Your task to perform on an android device: View the shopping cart on newegg.com. Add "beats solo 3" to the cart on newegg.com, then select checkout. Image 0: 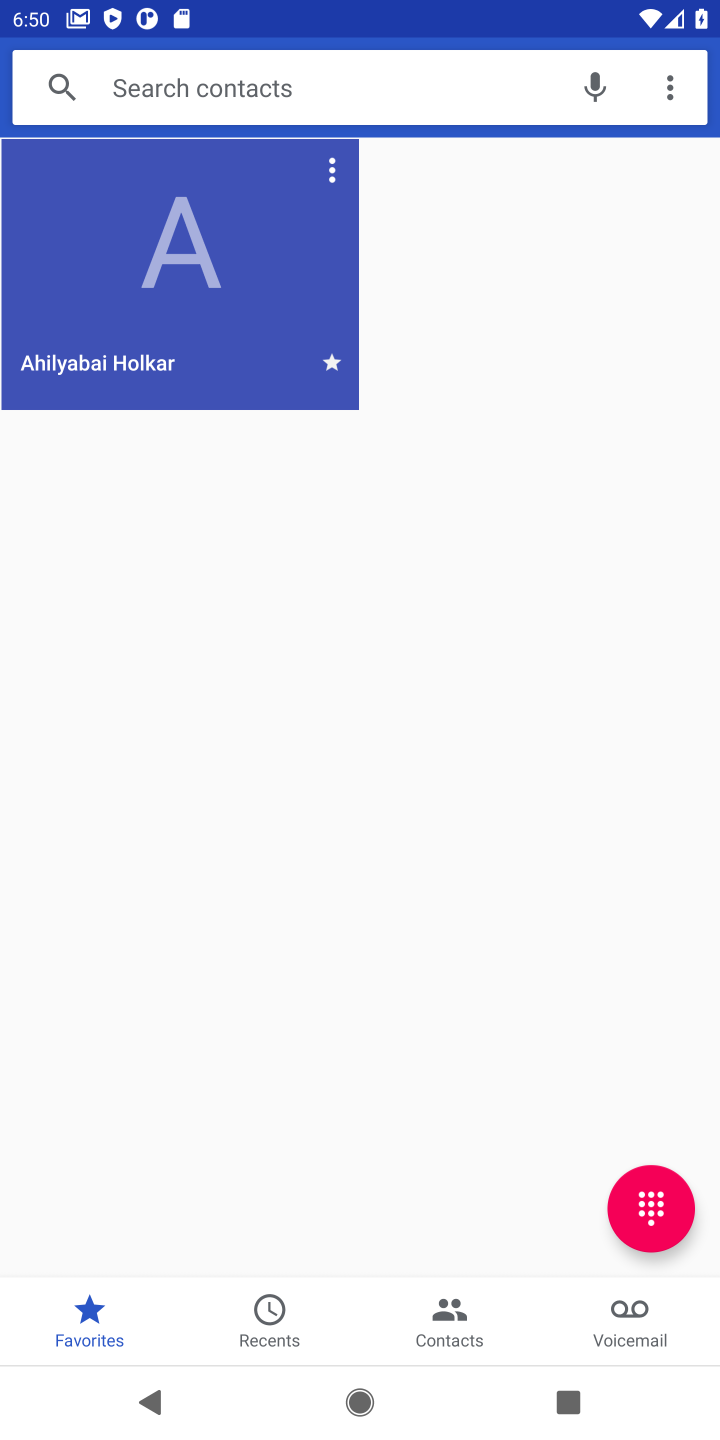
Step 0: press home button
Your task to perform on an android device: View the shopping cart on newegg.com. Add "beats solo 3" to the cart on newegg.com, then select checkout. Image 1: 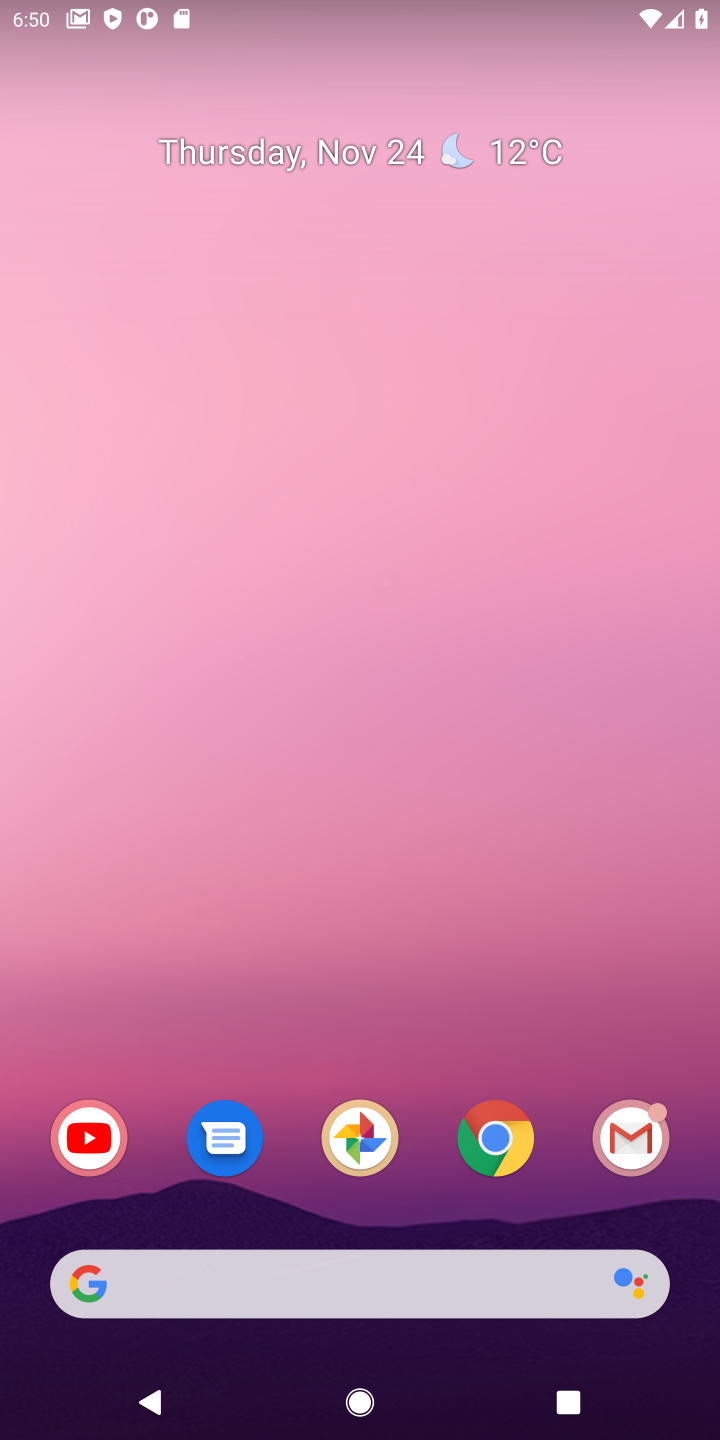
Step 1: click (499, 1121)
Your task to perform on an android device: View the shopping cart on newegg.com. Add "beats solo 3" to the cart on newegg.com, then select checkout. Image 2: 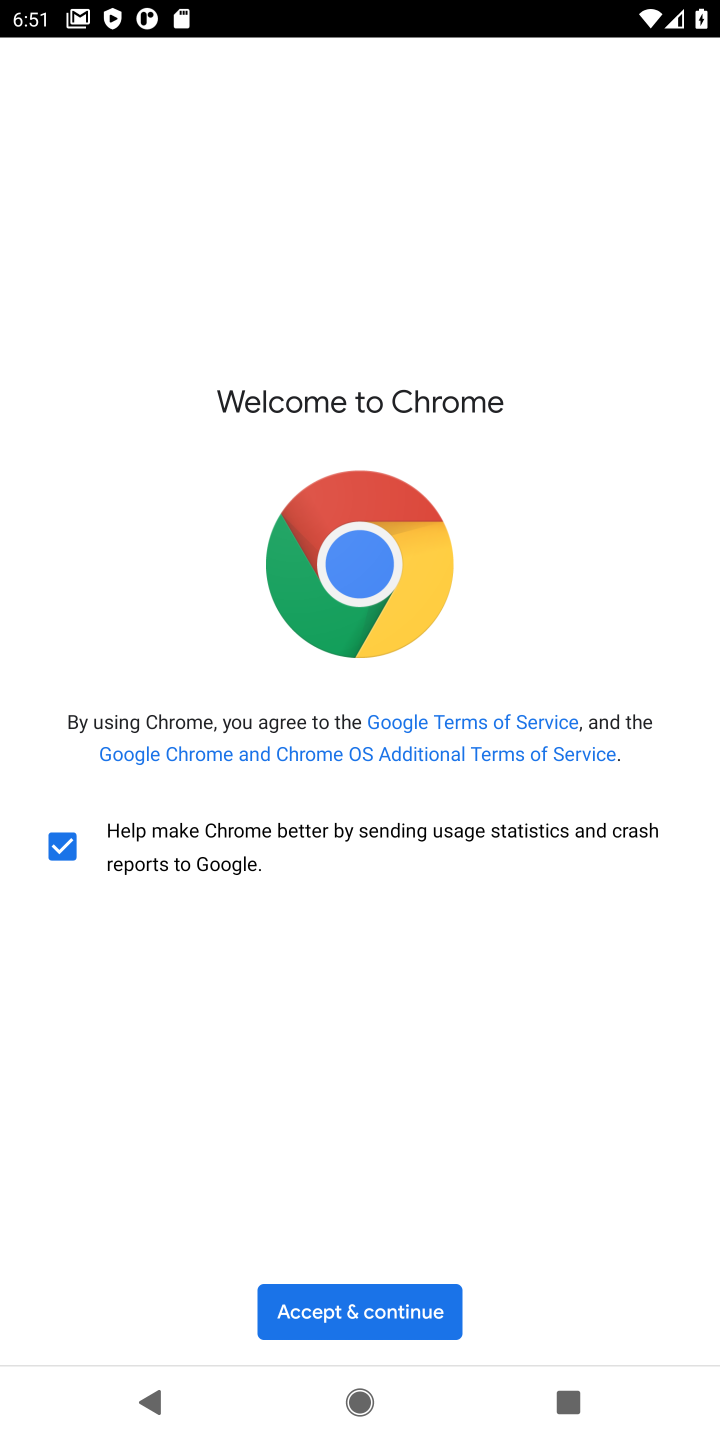
Step 2: click (355, 1309)
Your task to perform on an android device: View the shopping cart on newegg.com. Add "beats solo 3" to the cart on newegg.com, then select checkout. Image 3: 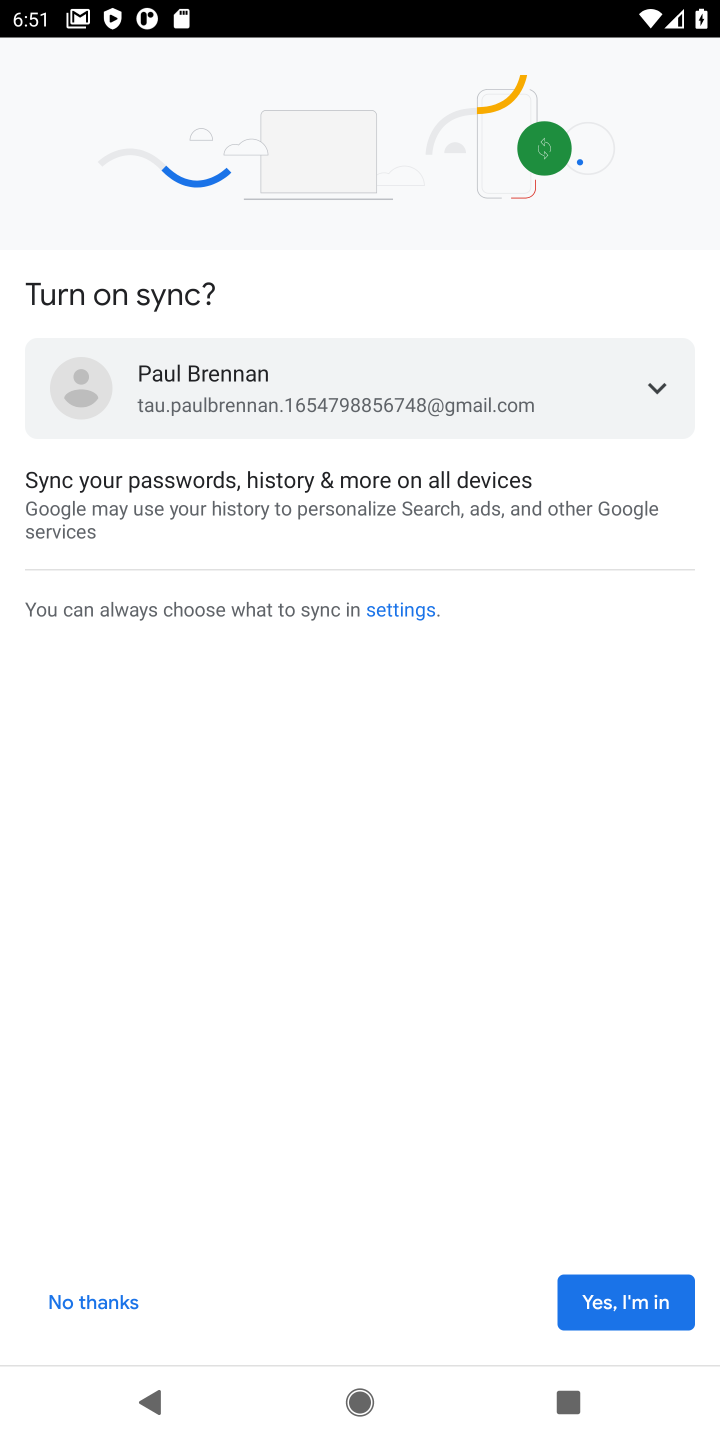
Step 3: click (619, 1311)
Your task to perform on an android device: View the shopping cart on newegg.com. Add "beats solo 3" to the cart on newegg.com, then select checkout. Image 4: 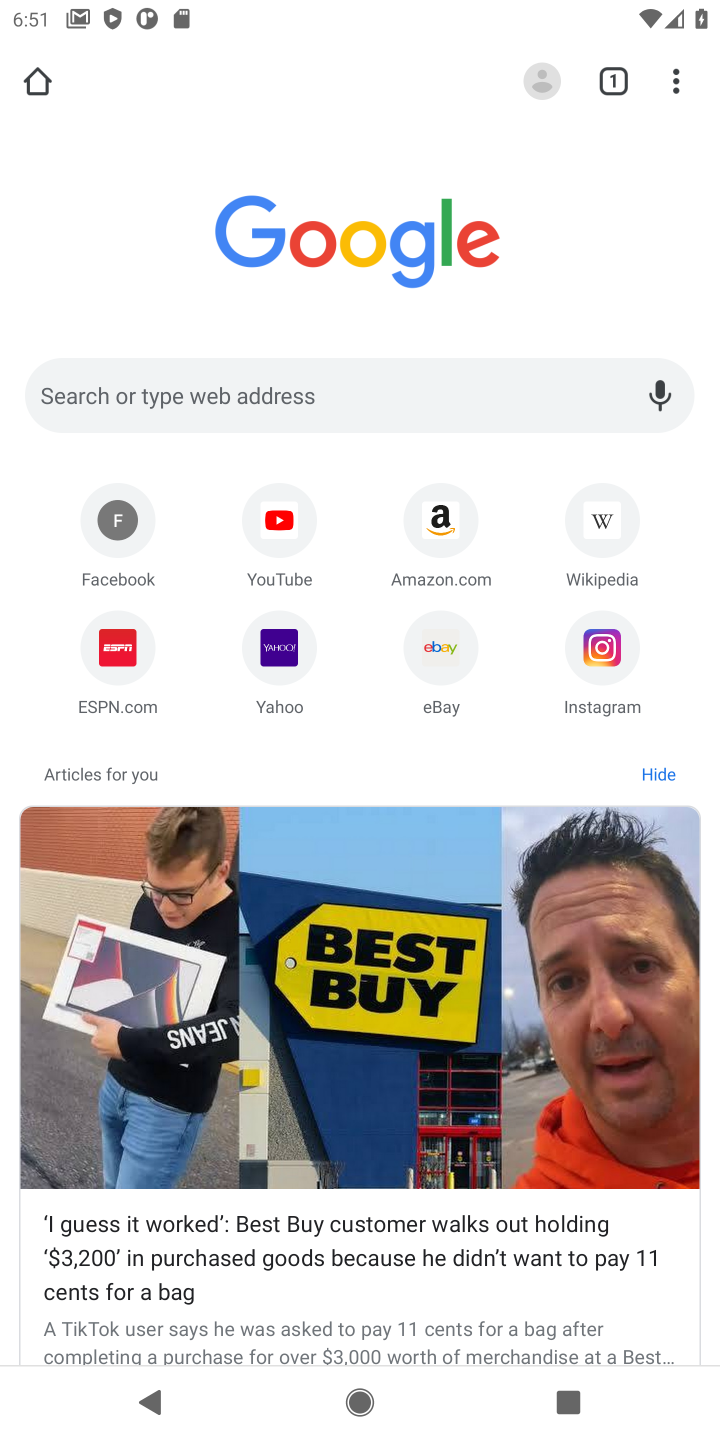
Step 4: click (321, 377)
Your task to perform on an android device: View the shopping cart on newegg.com. Add "beats solo 3" to the cart on newegg.com, then select checkout. Image 5: 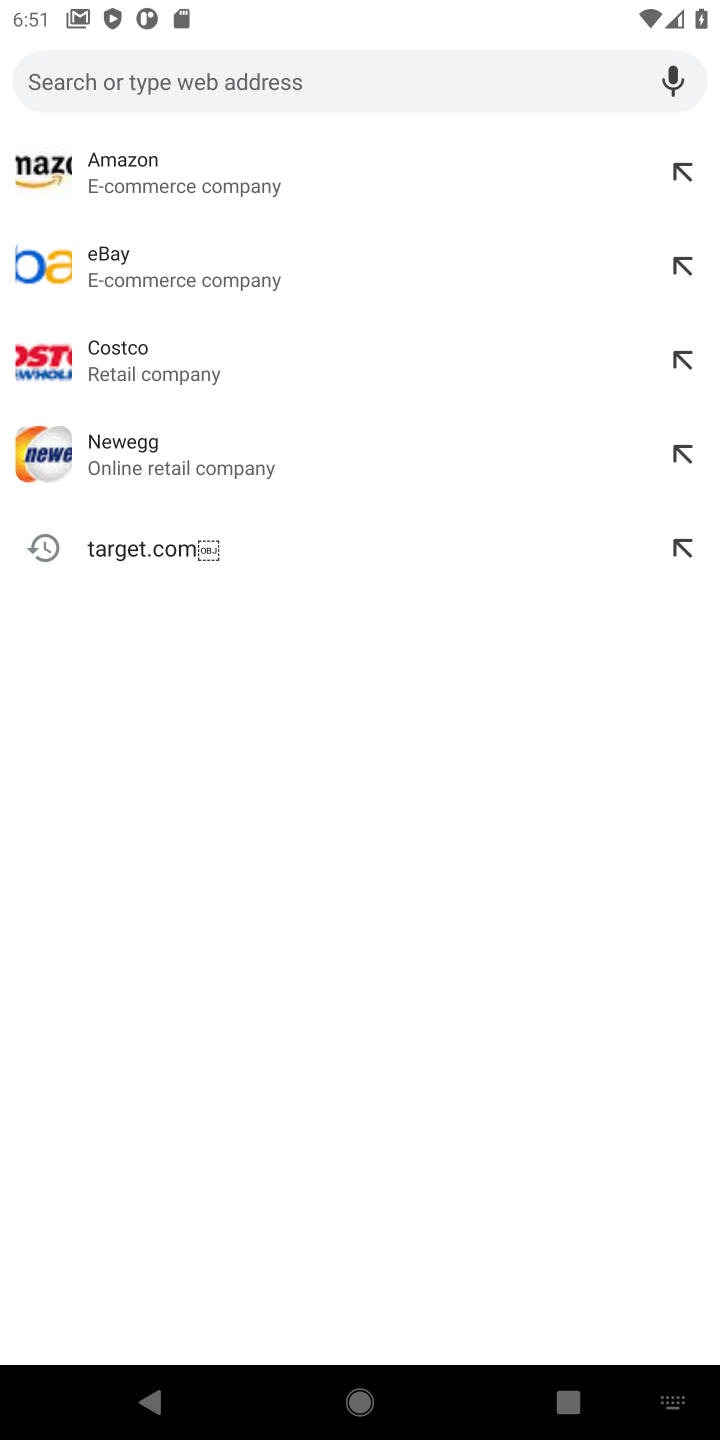
Step 5: click (210, 444)
Your task to perform on an android device: View the shopping cart on newegg.com. Add "beats solo 3" to the cart on newegg.com, then select checkout. Image 6: 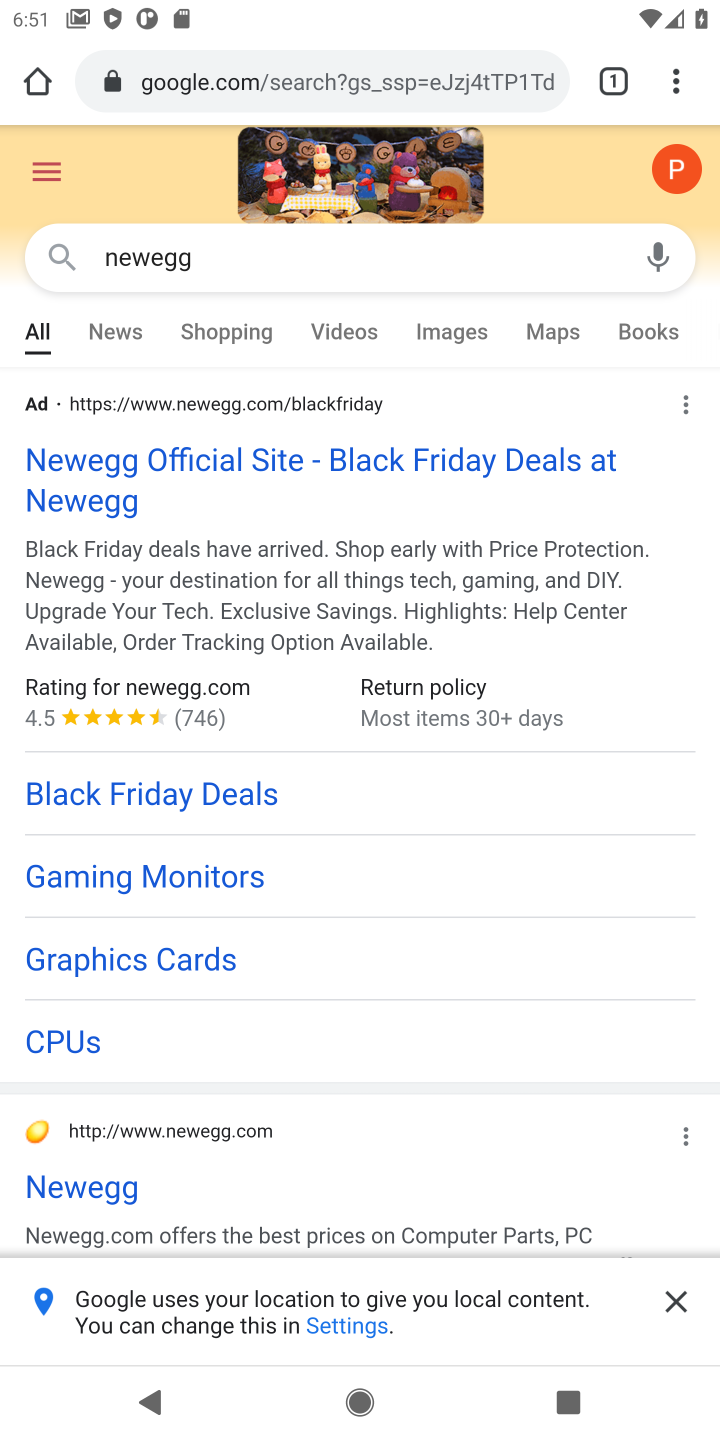
Step 6: click (197, 454)
Your task to perform on an android device: View the shopping cart on newegg.com. Add "beats solo 3" to the cart on newegg.com, then select checkout. Image 7: 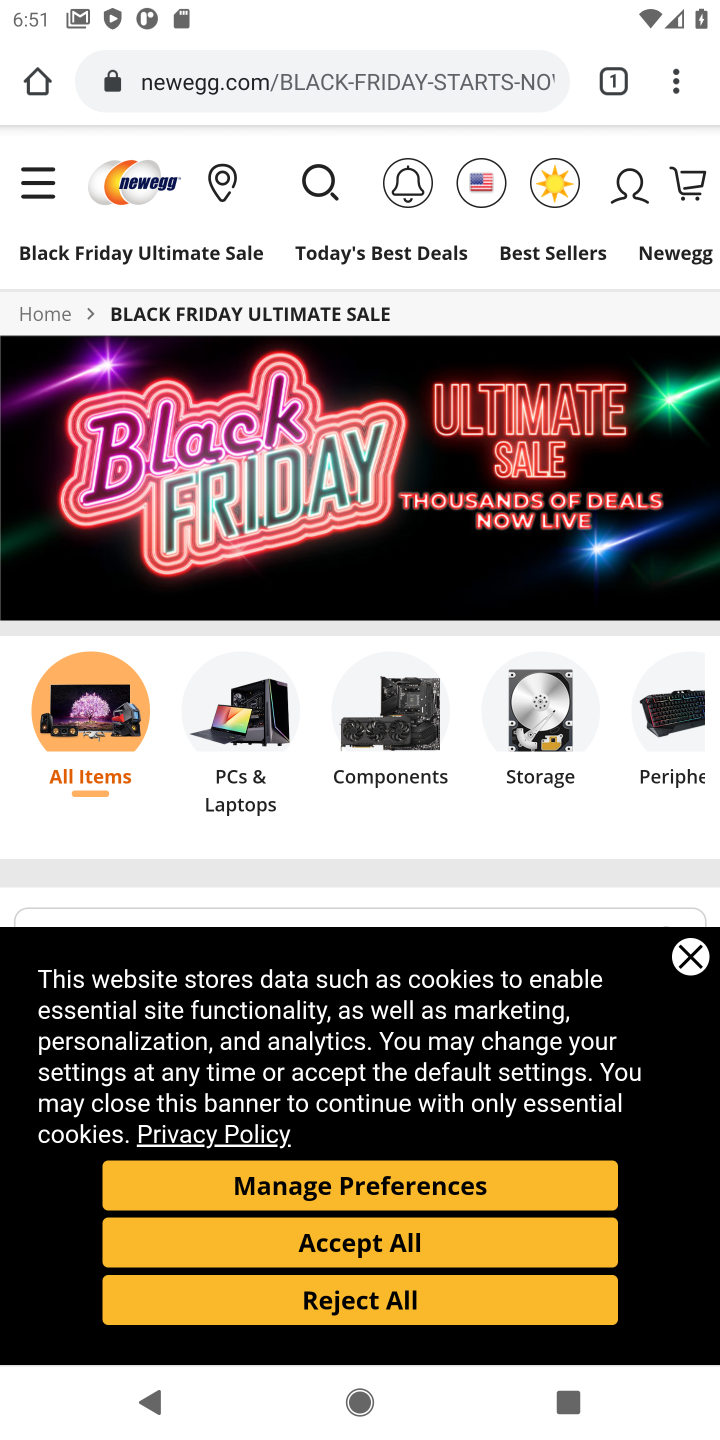
Step 7: click (702, 947)
Your task to perform on an android device: View the shopping cart on newegg.com. Add "beats solo 3" to the cart on newegg.com, then select checkout. Image 8: 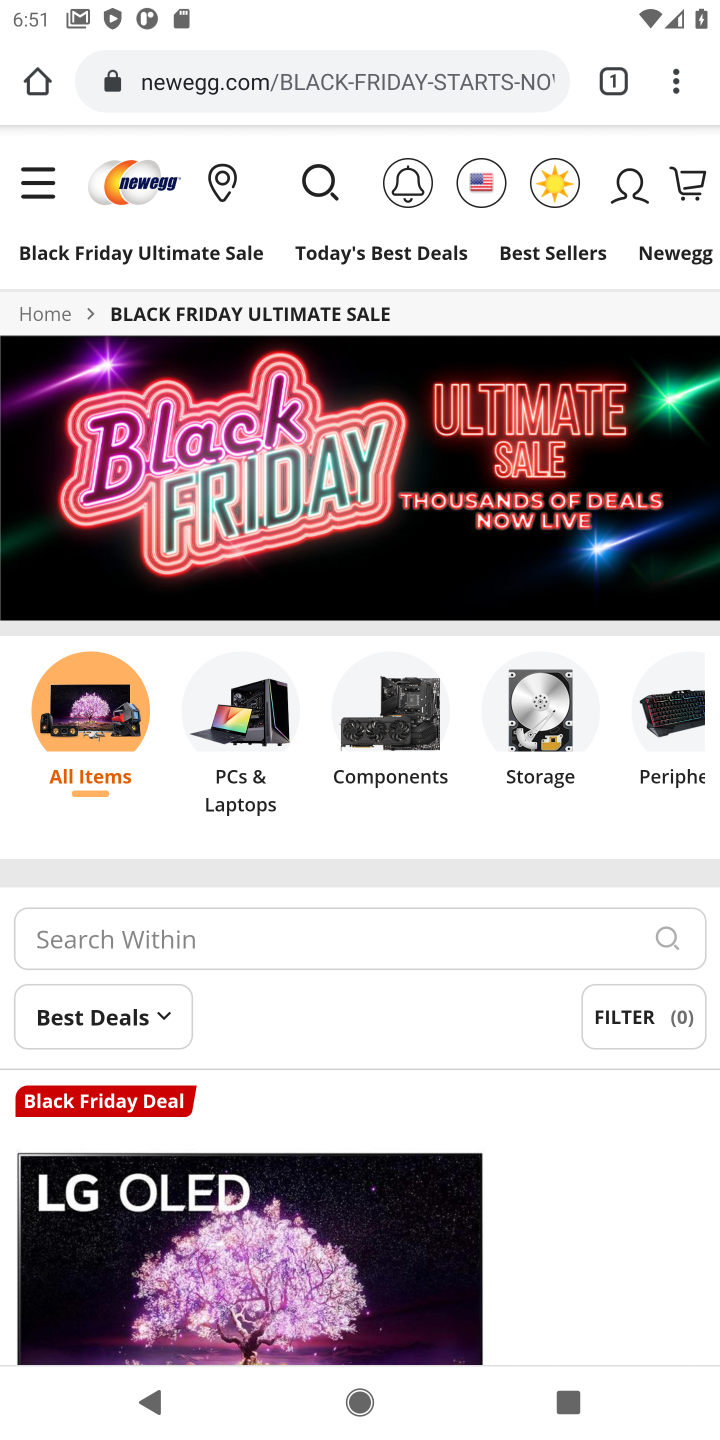
Step 8: click (338, 936)
Your task to perform on an android device: View the shopping cart on newegg.com. Add "beats solo 3" to the cart on newegg.com, then select checkout. Image 9: 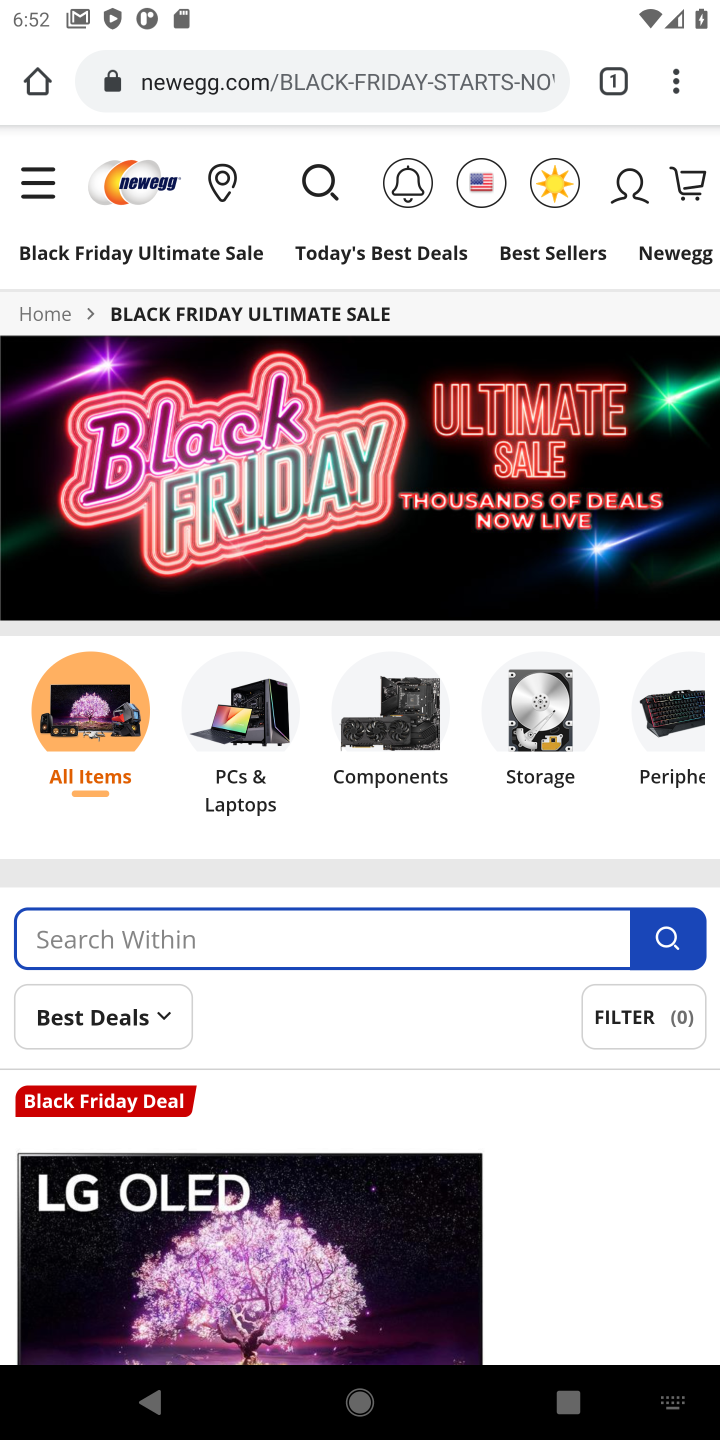
Step 9: type "beats solo 3"
Your task to perform on an android device: View the shopping cart on newegg.com. Add "beats solo 3" to the cart on newegg.com, then select checkout. Image 10: 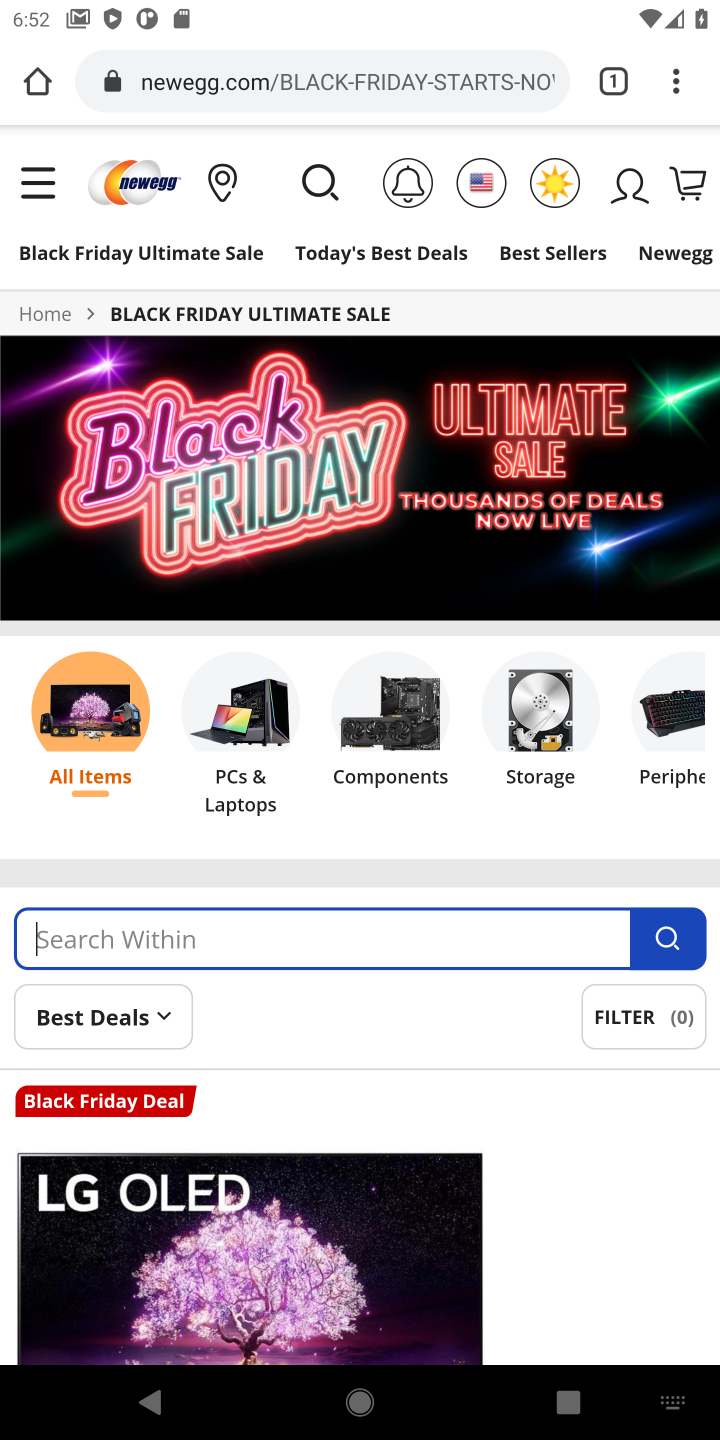
Step 10: click (242, 938)
Your task to perform on an android device: View the shopping cart on newegg.com. Add "beats solo 3" to the cart on newegg.com, then select checkout. Image 11: 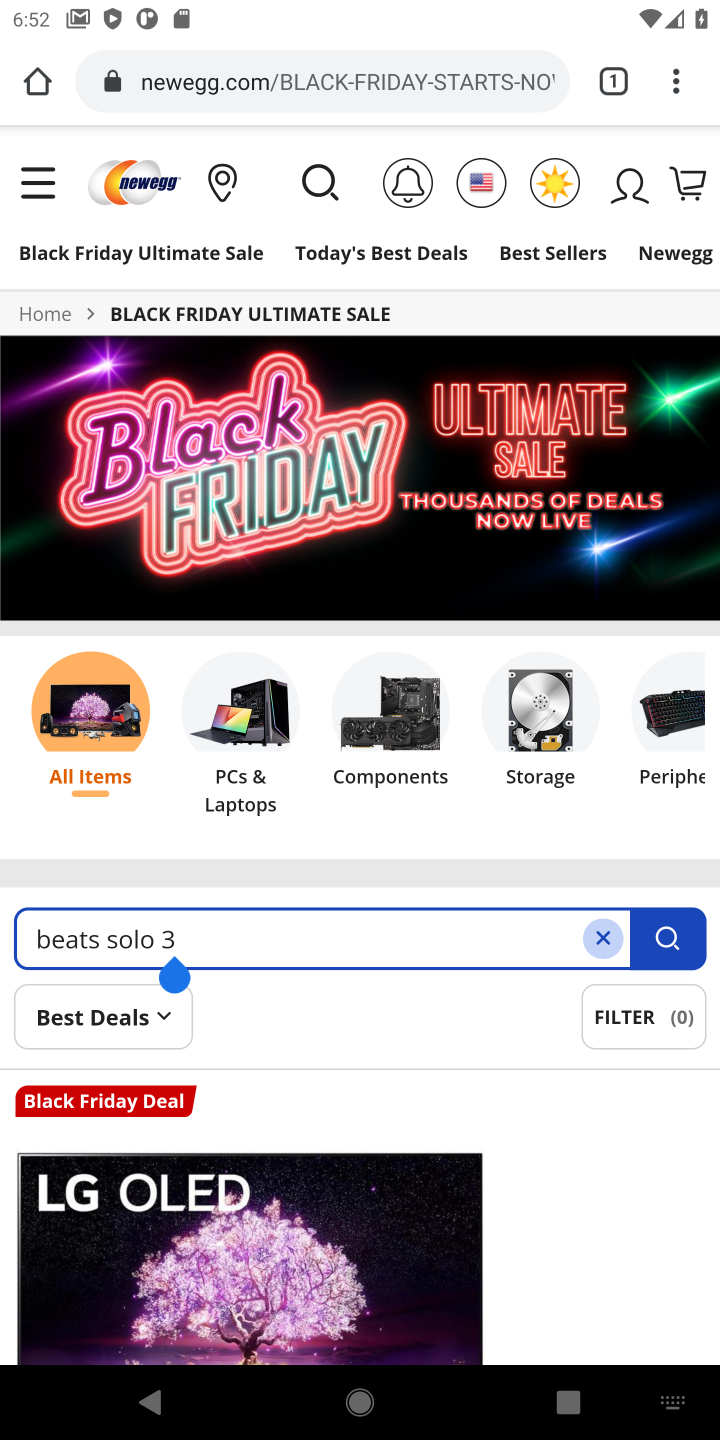
Step 11: click (658, 938)
Your task to perform on an android device: View the shopping cart on newegg.com. Add "beats solo 3" to the cart on newegg.com, then select checkout. Image 12: 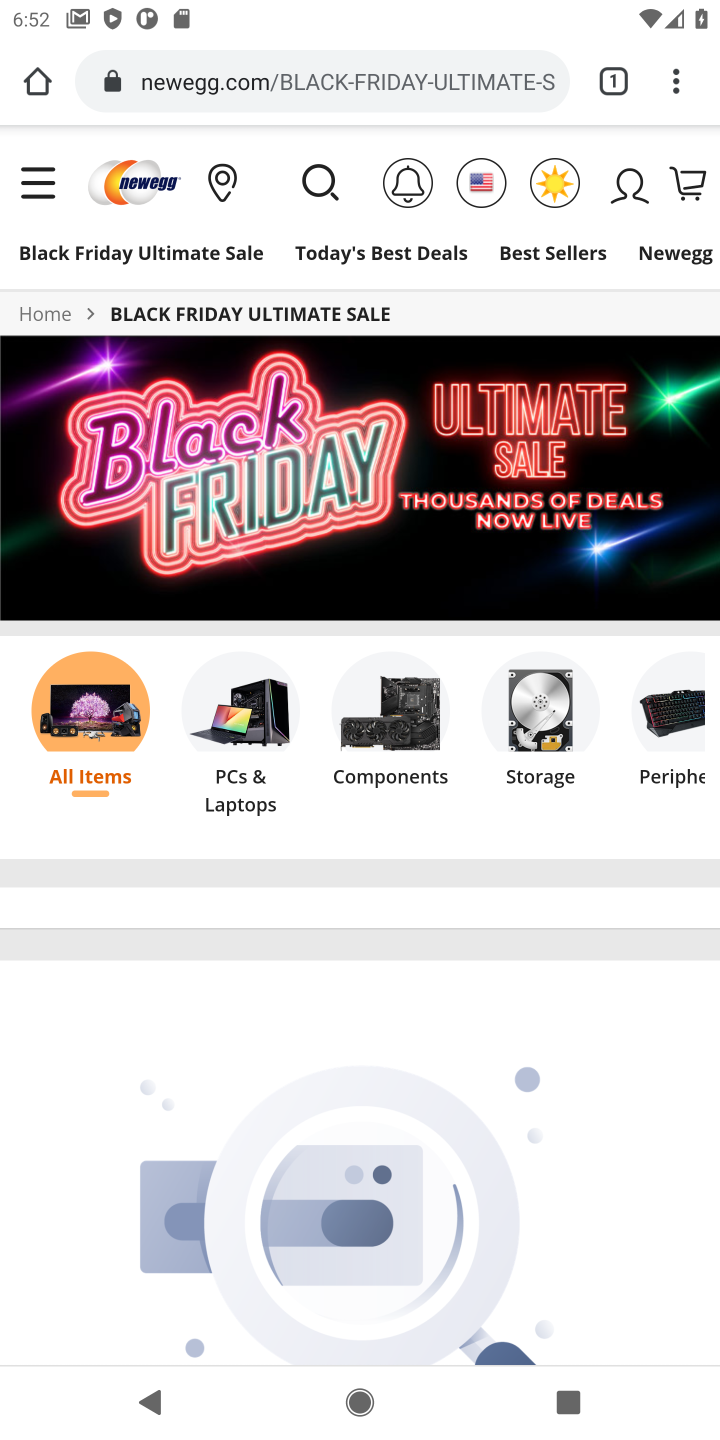
Step 12: task complete